Your task to perform on an android device: change timer sound Image 0: 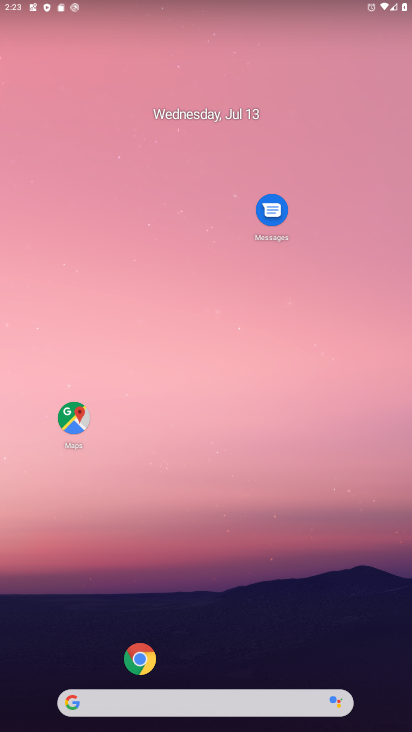
Step 0: drag from (57, 586) to (230, 18)
Your task to perform on an android device: change timer sound Image 1: 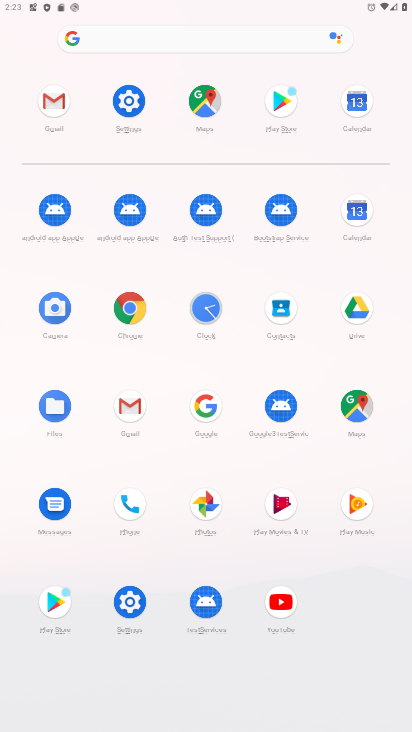
Step 1: click (214, 328)
Your task to perform on an android device: change timer sound Image 2: 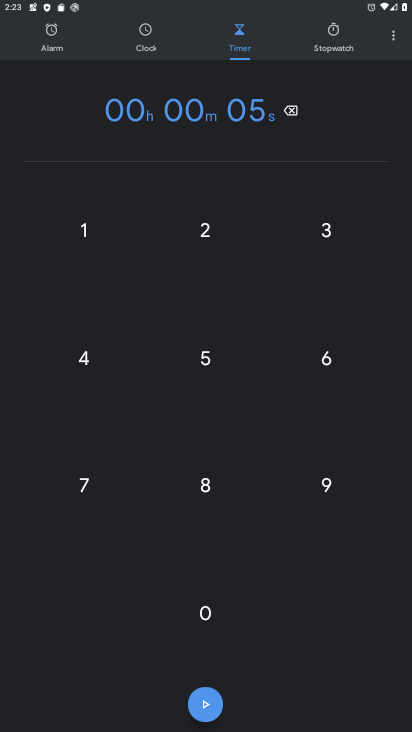
Step 2: click (390, 33)
Your task to perform on an android device: change timer sound Image 3: 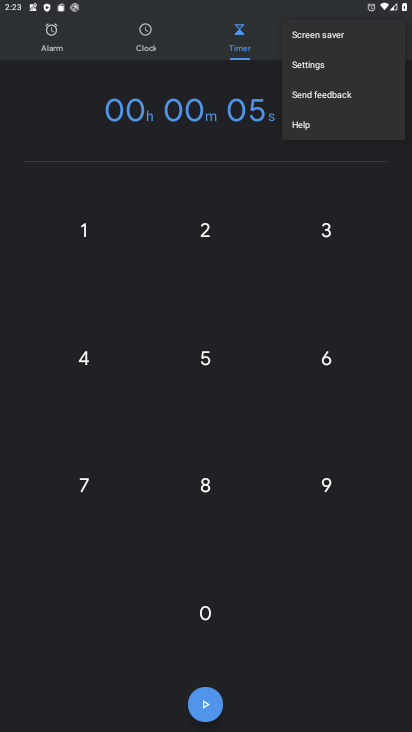
Step 3: click (312, 59)
Your task to perform on an android device: change timer sound Image 4: 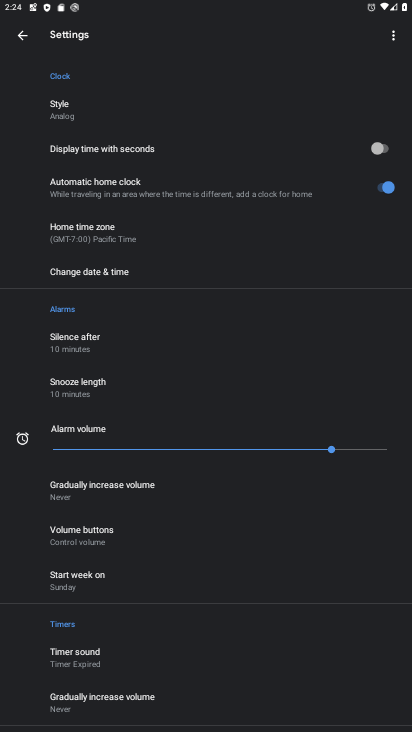
Step 4: drag from (176, 556) to (203, 106)
Your task to perform on an android device: change timer sound Image 5: 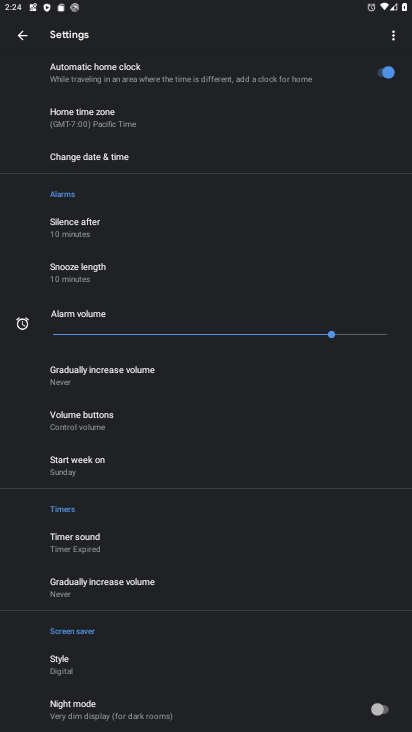
Step 5: click (85, 530)
Your task to perform on an android device: change timer sound Image 6: 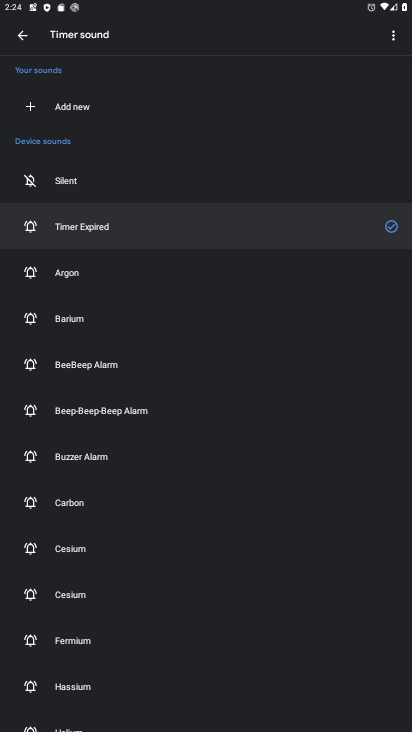
Step 6: click (79, 403)
Your task to perform on an android device: change timer sound Image 7: 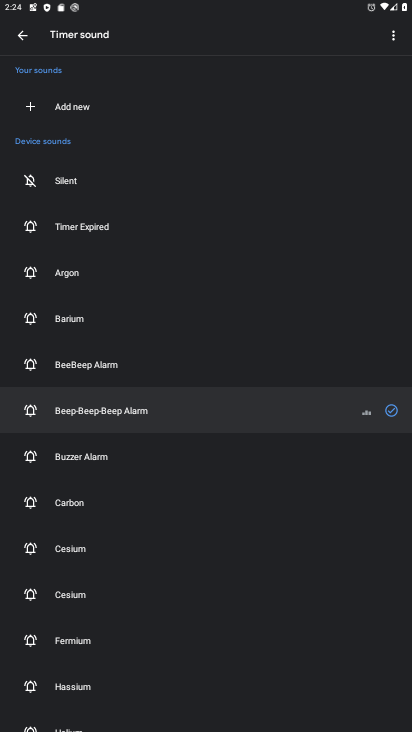
Step 7: task complete